Your task to perform on an android device: open chrome privacy settings Image 0: 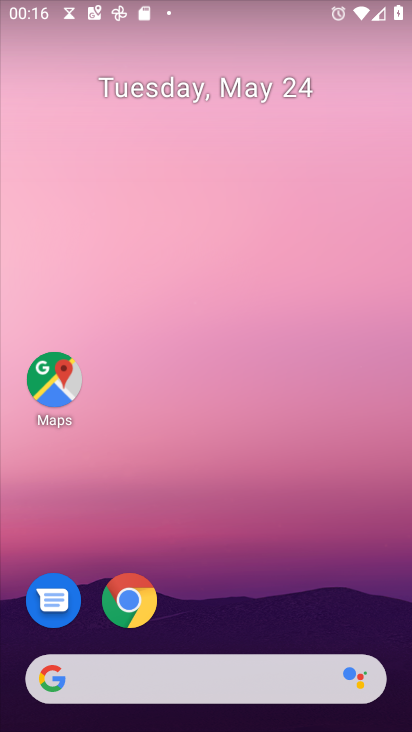
Step 0: click (123, 607)
Your task to perform on an android device: open chrome privacy settings Image 1: 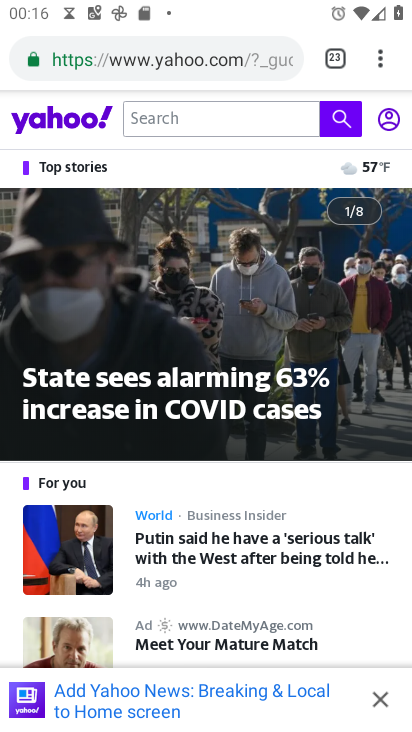
Step 1: click (380, 63)
Your task to perform on an android device: open chrome privacy settings Image 2: 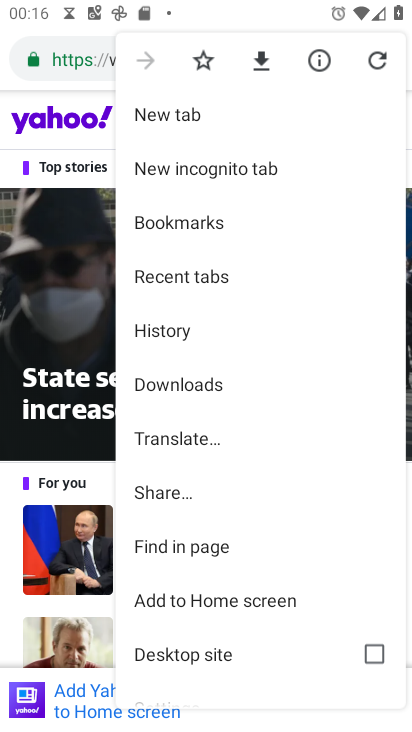
Step 2: drag from (185, 592) to (185, 173)
Your task to perform on an android device: open chrome privacy settings Image 3: 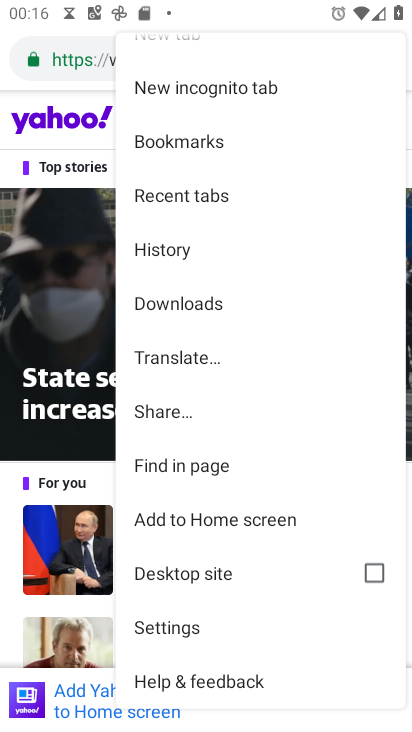
Step 3: click (187, 624)
Your task to perform on an android device: open chrome privacy settings Image 4: 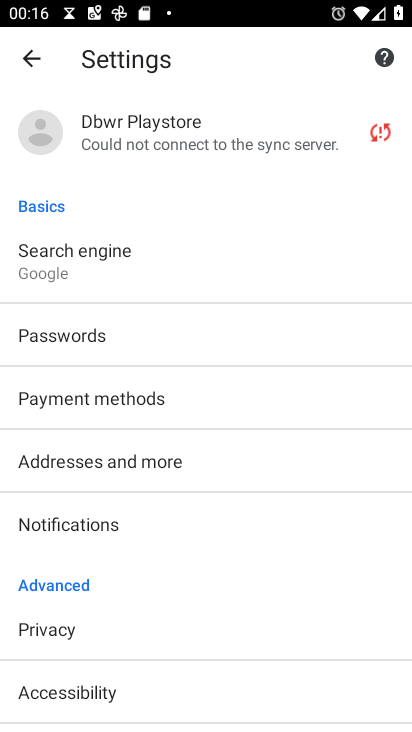
Step 4: click (87, 628)
Your task to perform on an android device: open chrome privacy settings Image 5: 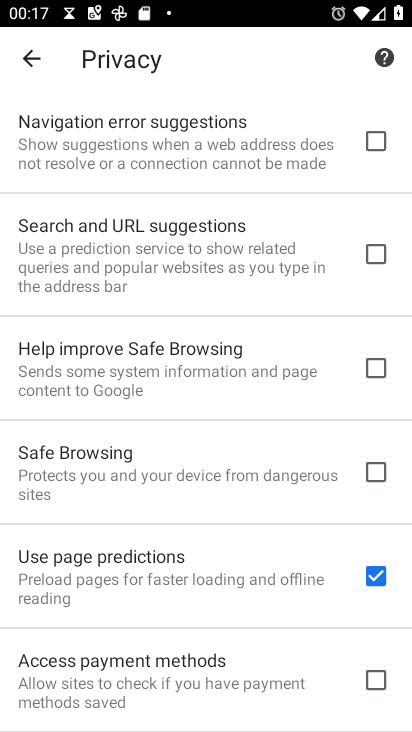
Step 5: task complete